Your task to perform on an android device: manage bookmarks in the chrome app Image 0: 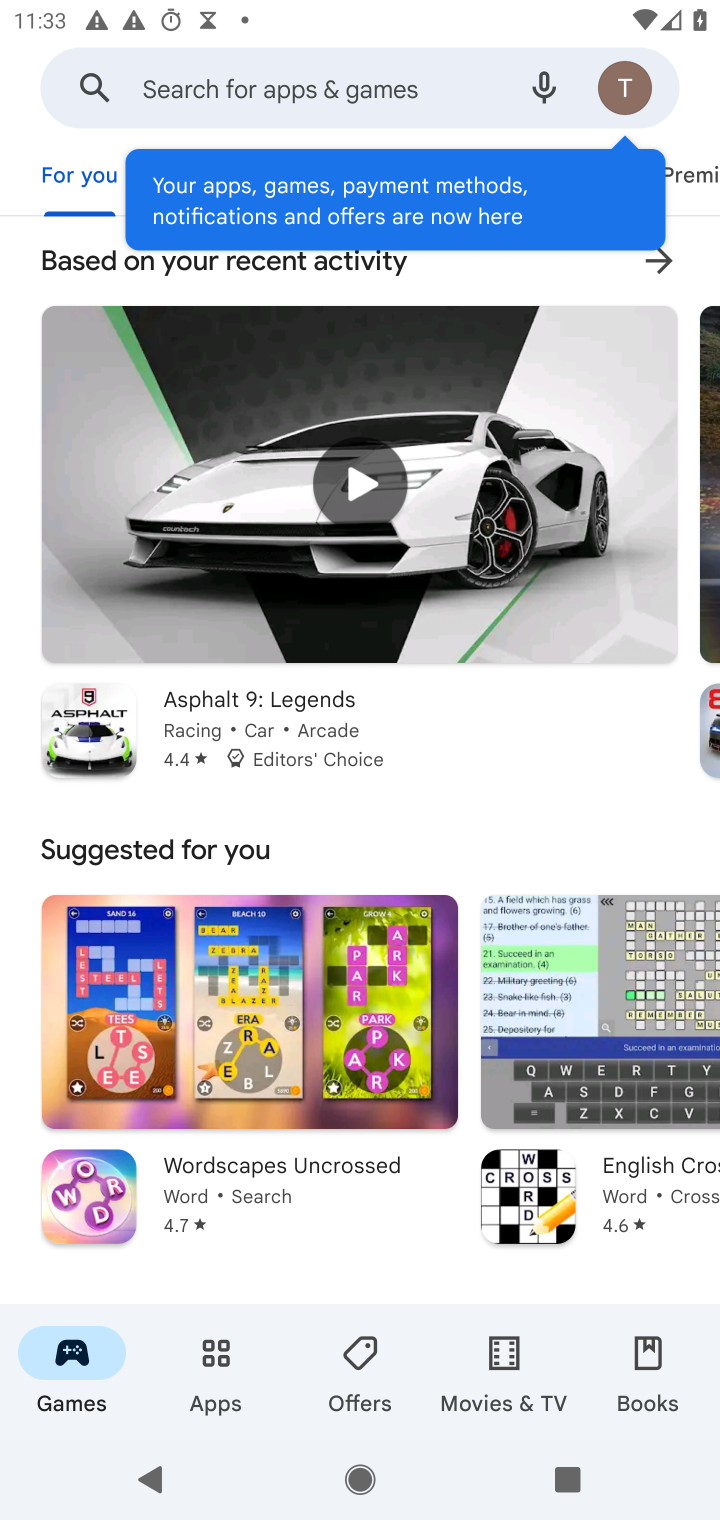
Step 0: press home button
Your task to perform on an android device: manage bookmarks in the chrome app Image 1: 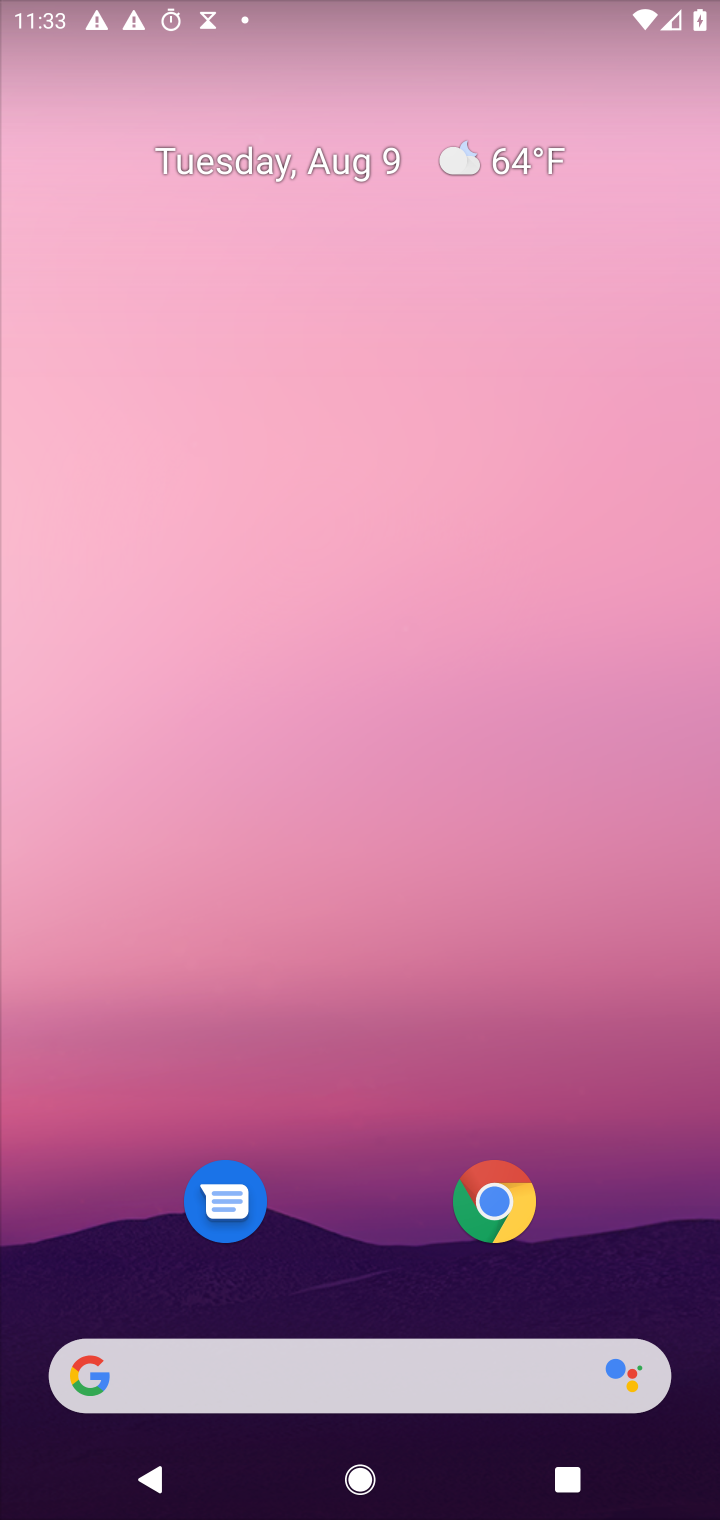
Step 1: click (476, 1190)
Your task to perform on an android device: manage bookmarks in the chrome app Image 2: 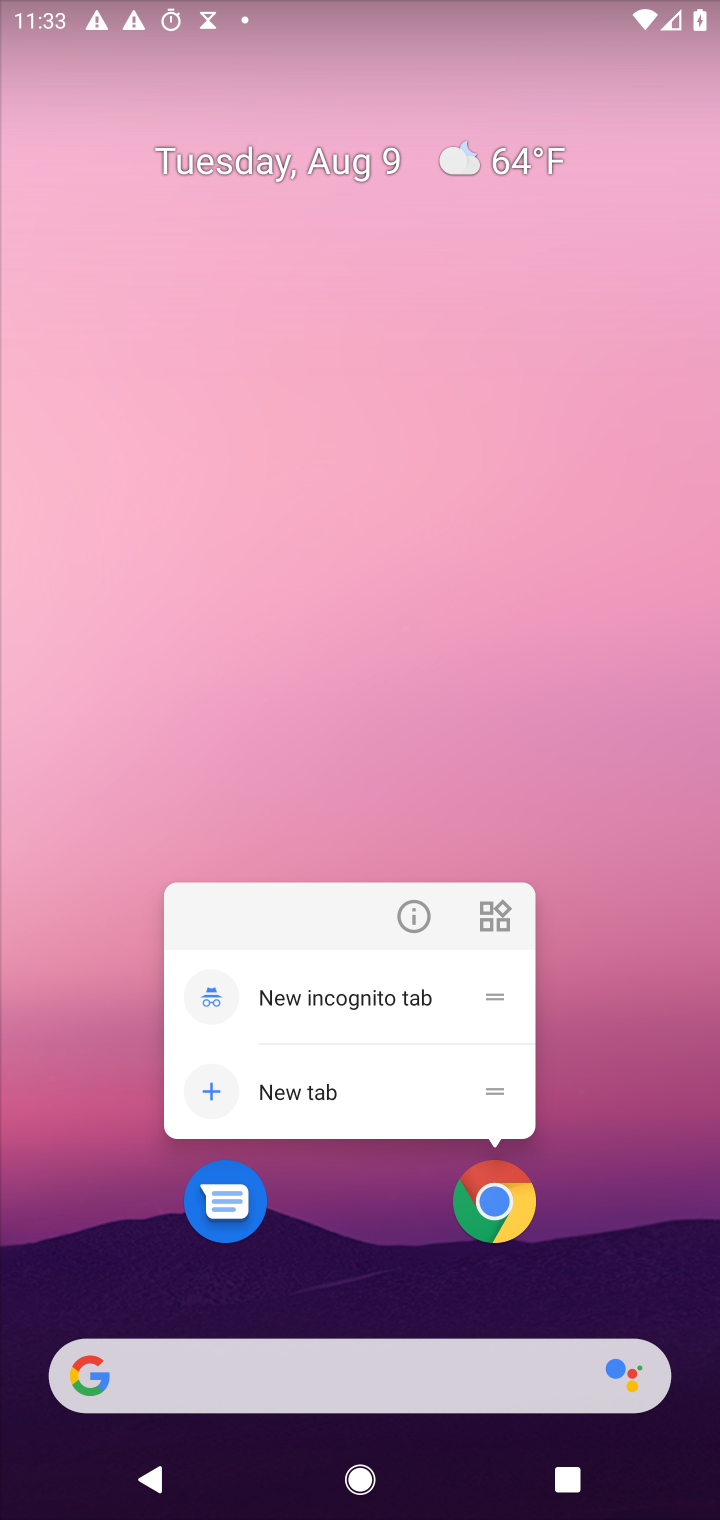
Step 2: click (494, 1205)
Your task to perform on an android device: manage bookmarks in the chrome app Image 3: 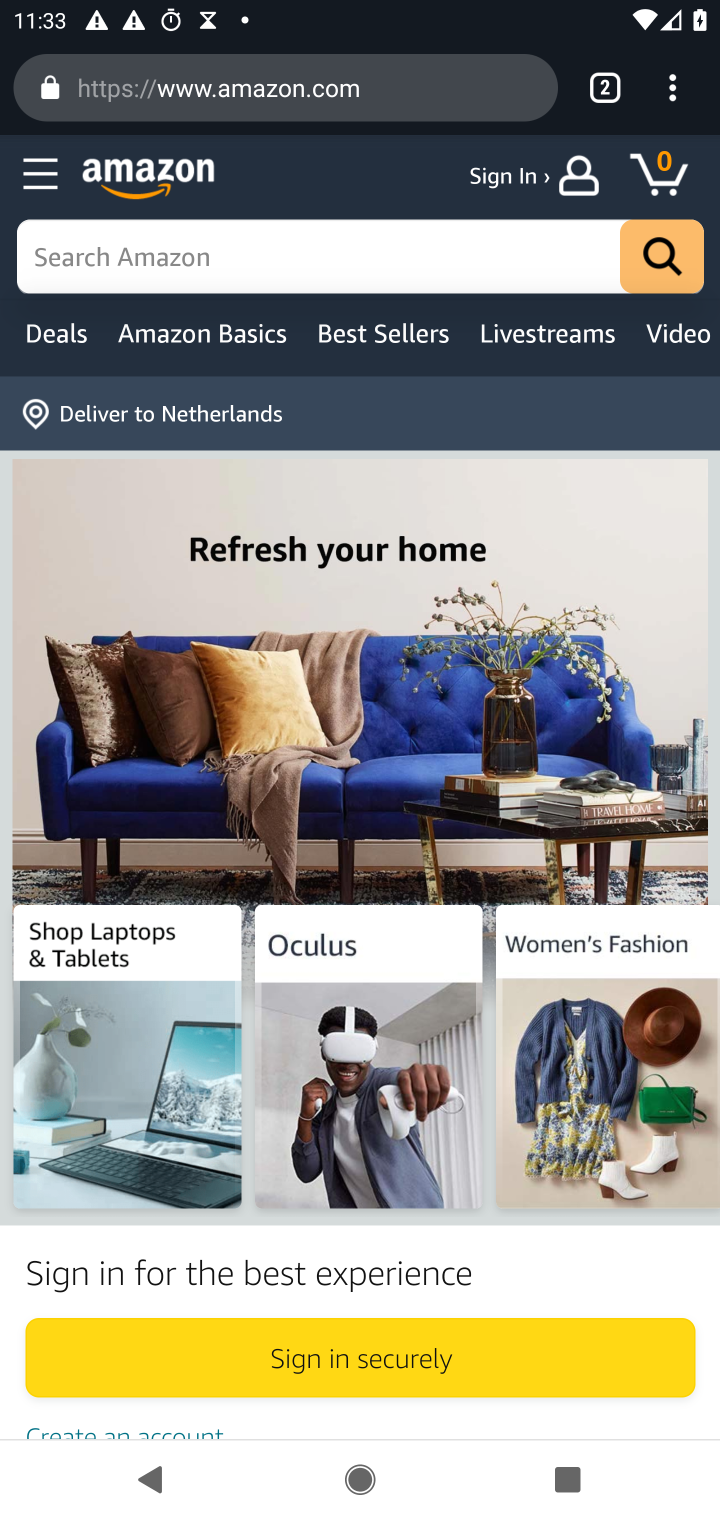
Step 3: task complete